Your task to perform on an android device: find which apps use the phone's location Image 0: 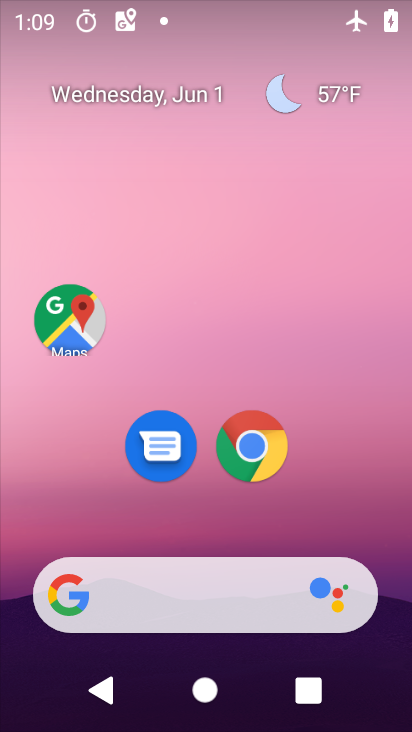
Step 0: drag from (218, 525) to (260, 266)
Your task to perform on an android device: find which apps use the phone's location Image 1: 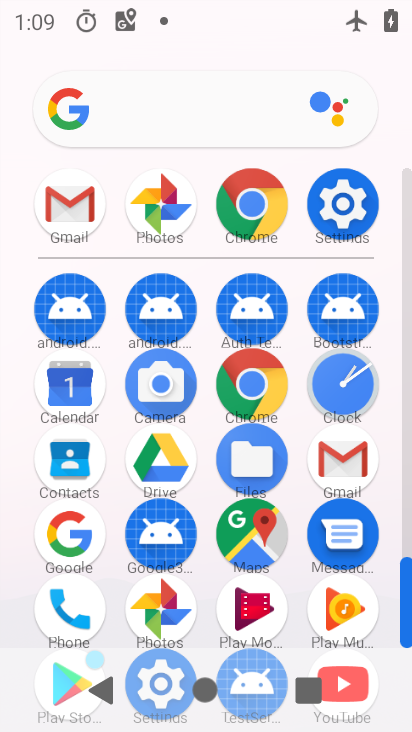
Step 1: drag from (209, 279) to (196, 132)
Your task to perform on an android device: find which apps use the phone's location Image 2: 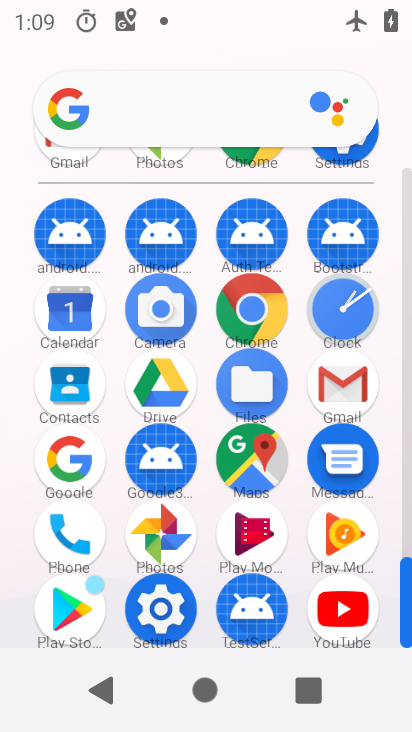
Step 2: click (165, 599)
Your task to perform on an android device: find which apps use the phone's location Image 3: 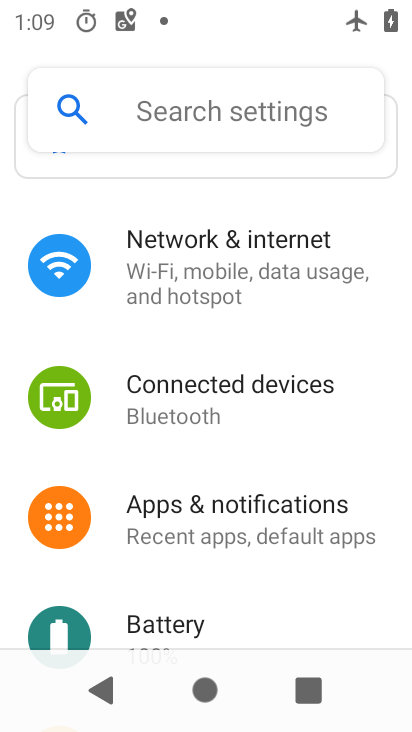
Step 3: drag from (201, 583) to (218, 306)
Your task to perform on an android device: find which apps use the phone's location Image 4: 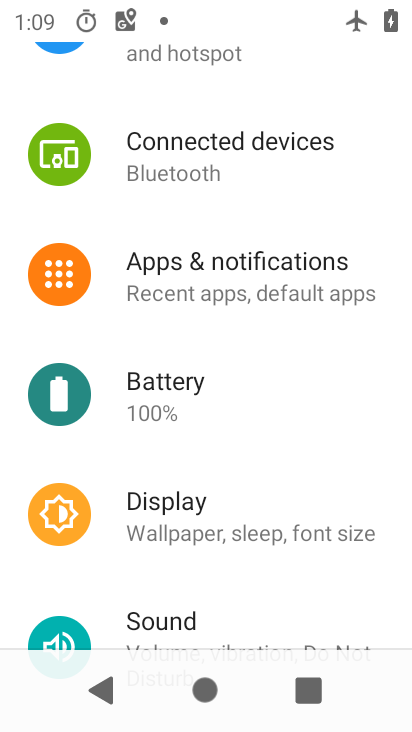
Step 4: drag from (186, 581) to (247, 302)
Your task to perform on an android device: find which apps use the phone's location Image 5: 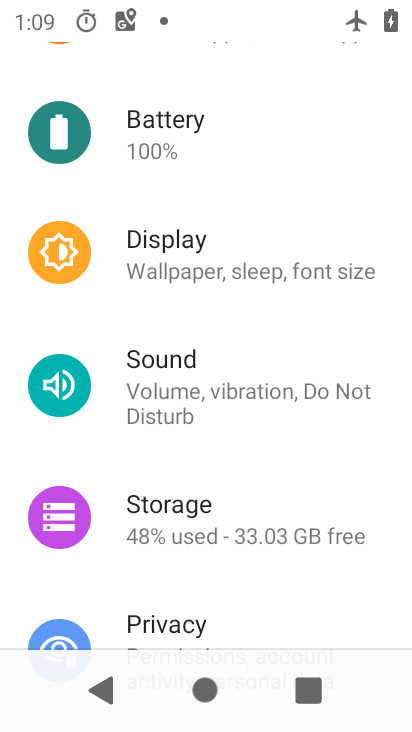
Step 5: drag from (212, 588) to (236, 328)
Your task to perform on an android device: find which apps use the phone's location Image 6: 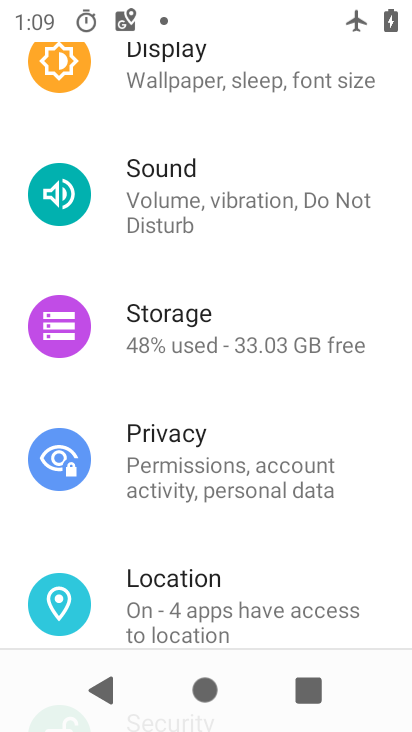
Step 6: click (183, 606)
Your task to perform on an android device: find which apps use the phone's location Image 7: 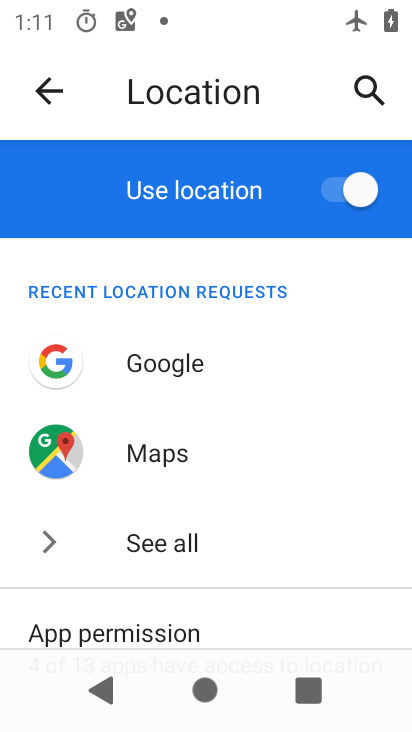
Step 7: drag from (196, 566) to (261, 333)
Your task to perform on an android device: find which apps use the phone's location Image 8: 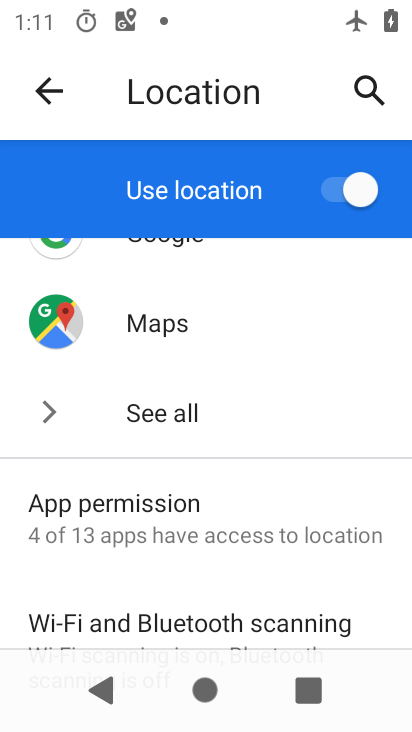
Step 8: click (168, 532)
Your task to perform on an android device: find which apps use the phone's location Image 9: 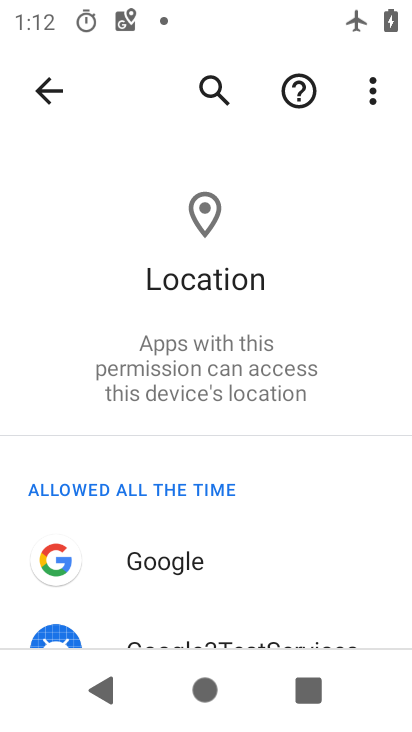
Step 9: task complete